Your task to perform on an android device: Open battery settings Image 0: 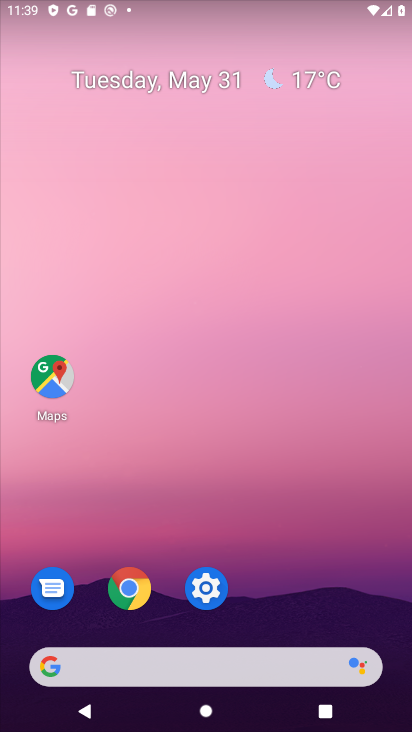
Step 0: press home button
Your task to perform on an android device: Open battery settings Image 1: 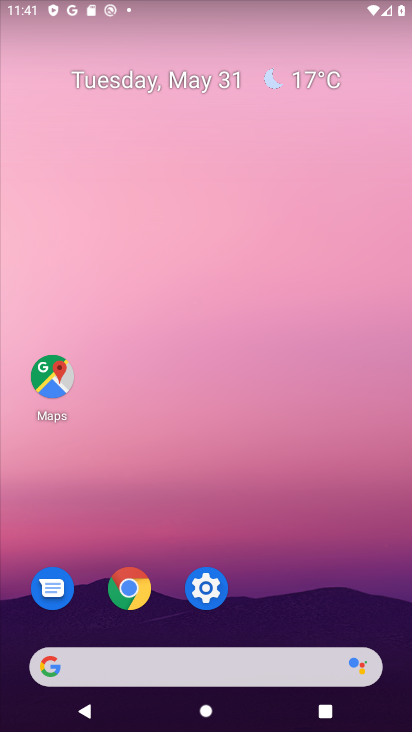
Step 1: click (193, 596)
Your task to perform on an android device: Open battery settings Image 2: 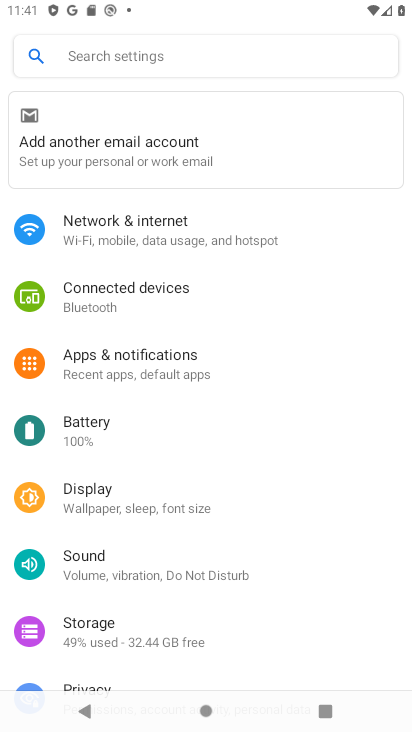
Step 2: click (113, 424)
Your task to perform on an android device: Open battery settings Image 3: 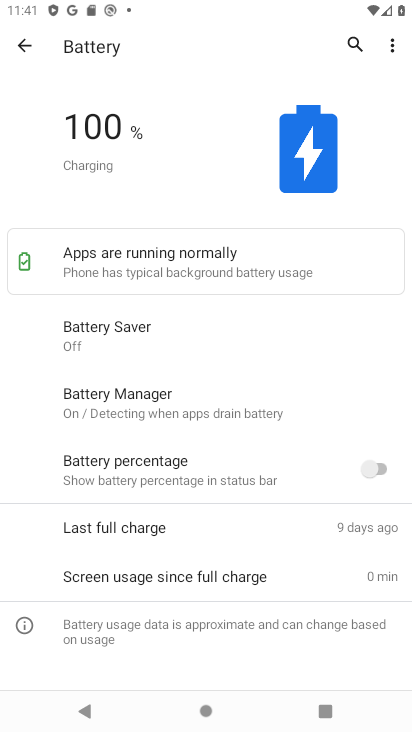
Step 3: task complete